Your task to perform on an android device: turn on showing notifications on the lock screen Image 0: 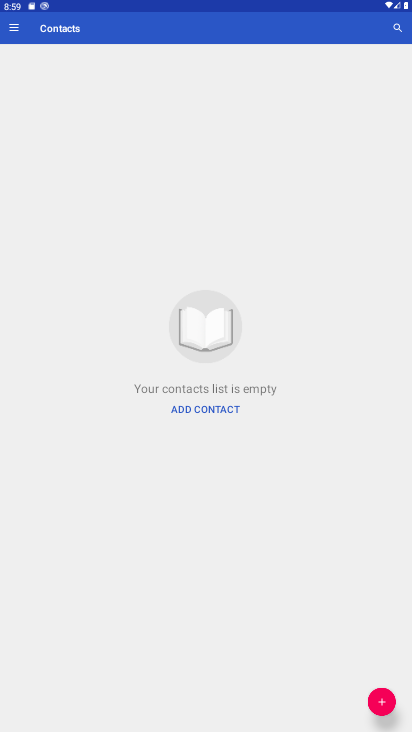
Step 0: press home button
Your task to perform on an android device: turn on showing notifications on the lock screen Image 1: 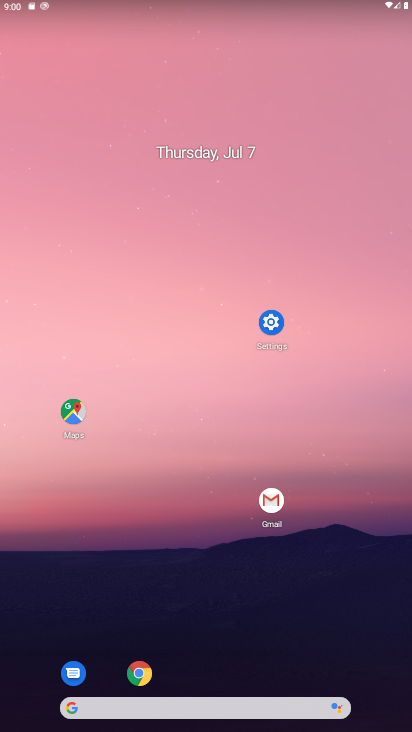
Step 1: click (268, 336)
Your task to perform on an android device: turn on showing notifications on the lock screen Image 2: 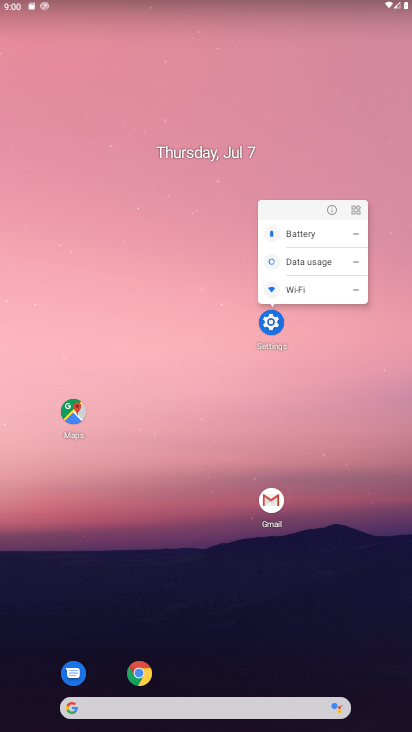
Step 2: click (263, 329)
Your task to perform on an android device: turn on showing notifications on the lock screen Image 3: 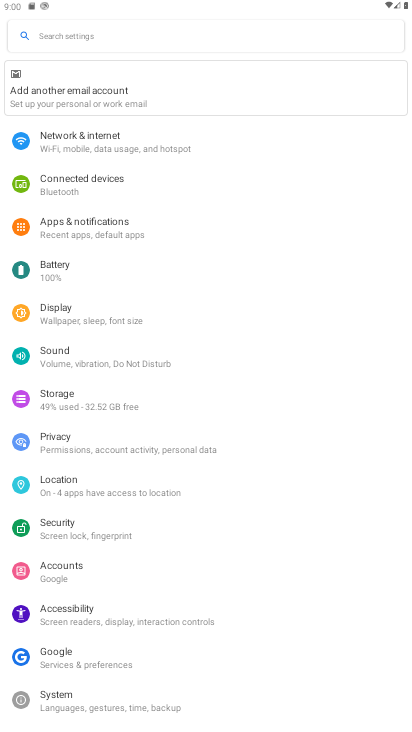
Step 3: click (83, 225)
Your task to perform on an android device: turn on showing notifications on the lock screen Image 4: 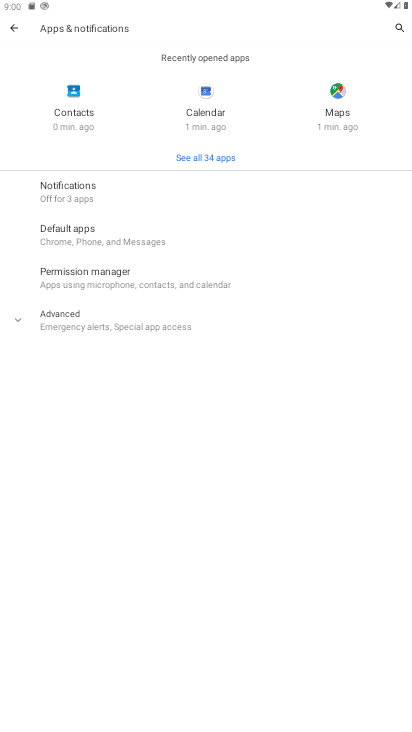
Step 4: click (25, 318)
Your task to perform on an android device: turn on showing notifications on the lock screen Image 5: 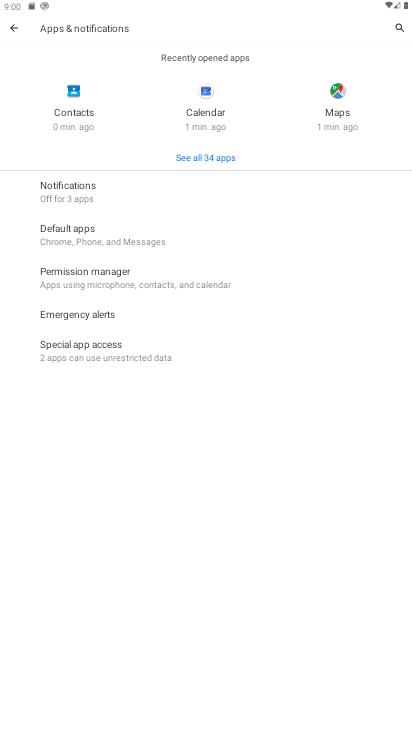
Step 5: click (59, 184)
Your task to perform on an android device: turn on showing notifications on the lock screen Image 6: 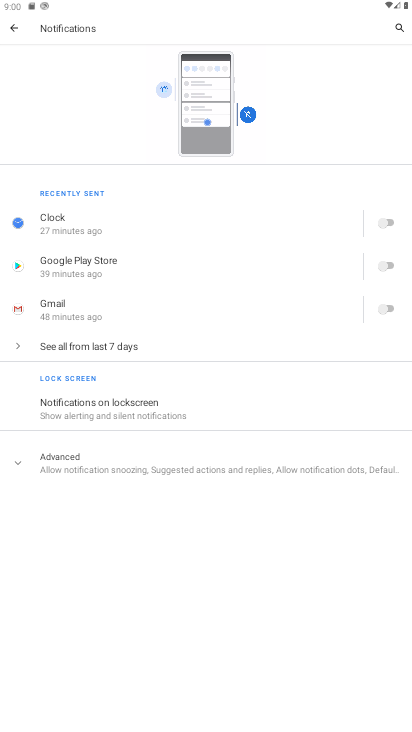
Step 6: click (81, 409)
Your task to perform on an android device: turn on showing notifications on the lock screen Image 7: 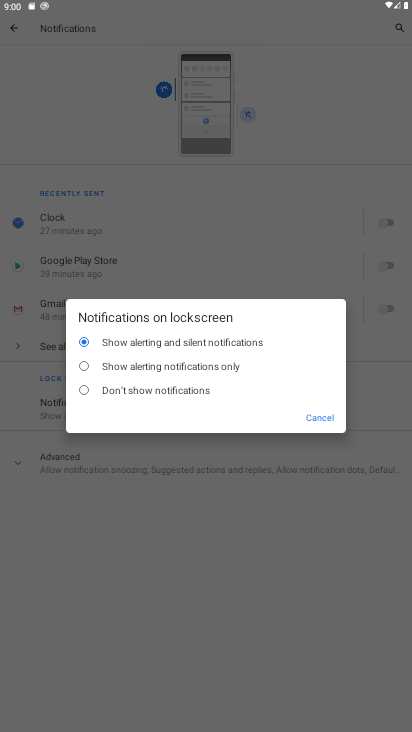
Step 7: task complete